Your task to perform on an android device: Search for the new Nintendo switch on Best Buy Image 0: 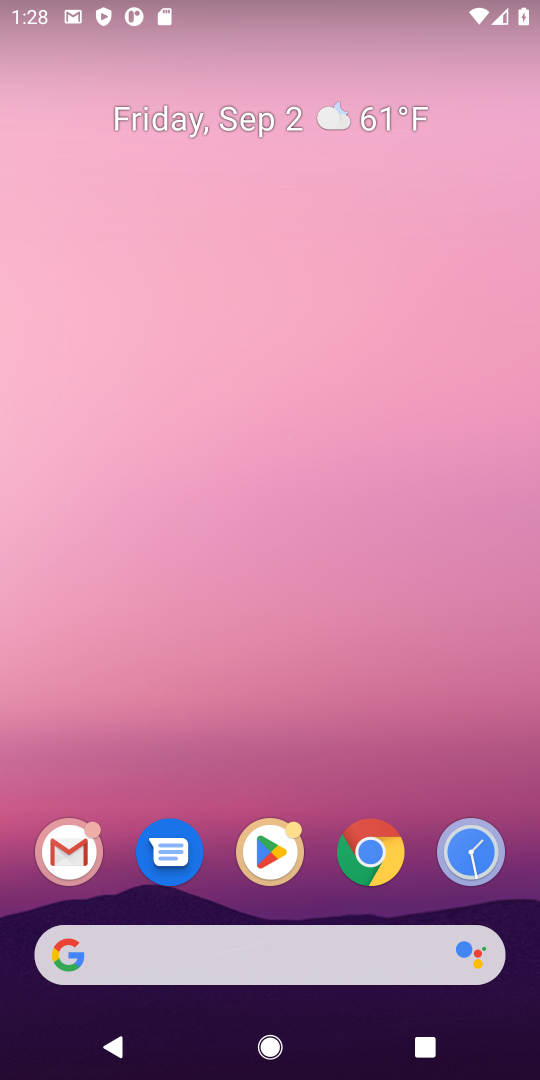
Step 0: click (300, 26)
Your task to perform on an android device: Search for the new Nintendo switch on Best Buy Image 1: 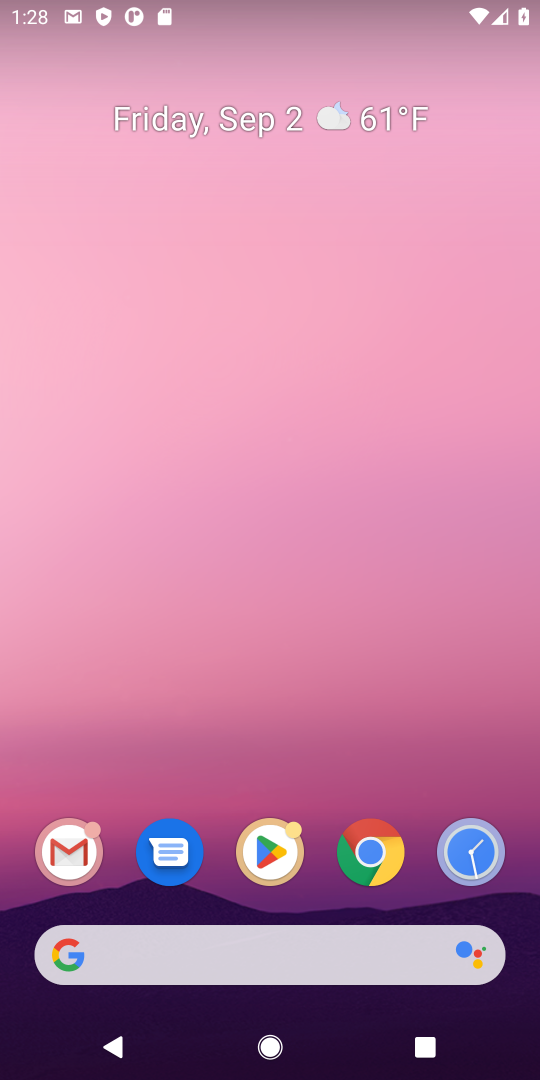
Step 1: drag from (320, 788) to (383, 2)
Your task to perform on an android device: Search for the new Nintendo switch on Best Buy Image 2: 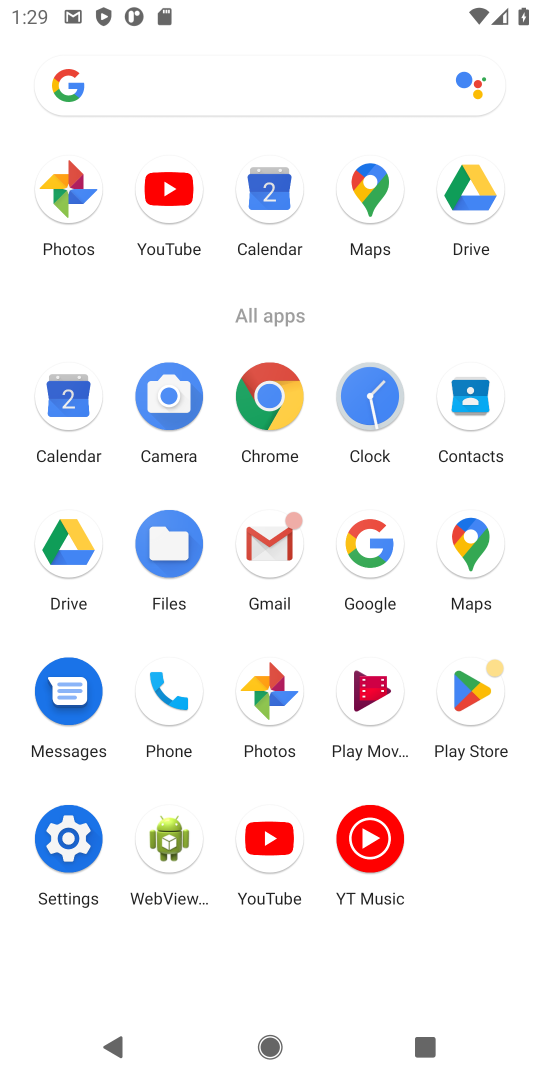
Step 2: click (263, 396)
Your task to perform on an android device: Search for the new Nintendo switch on Best Buy Image 3: 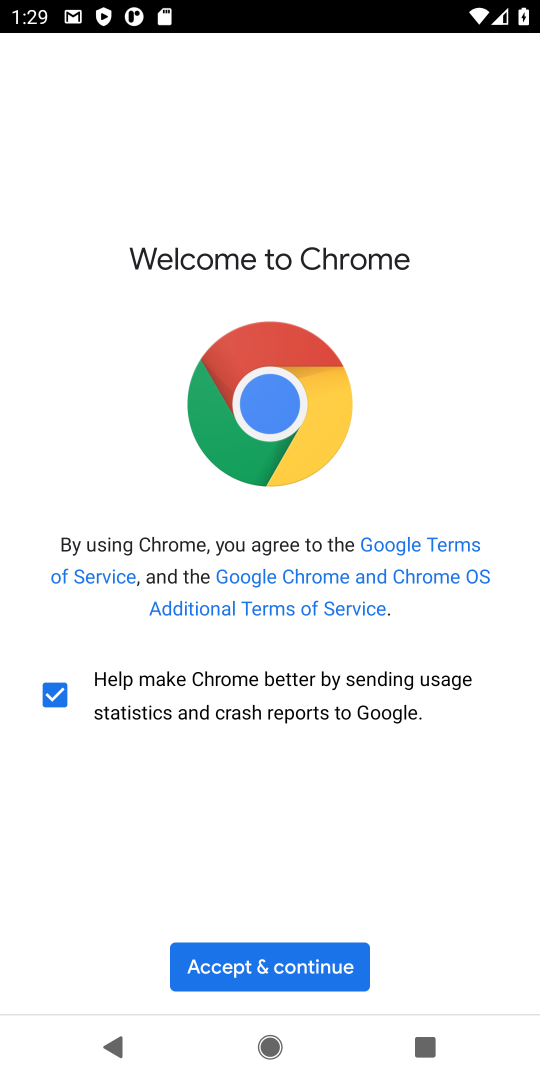
Step 3: click (300, 975)
Your task to perform on an android device: Search for the new Nintendo switch on Best Buy Image 4: 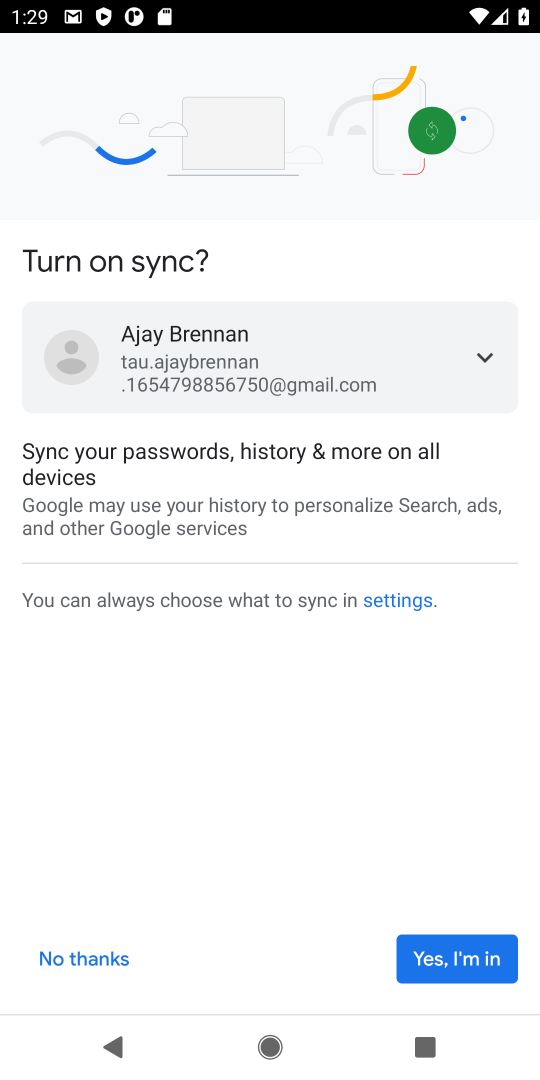
Step 4: click (458, 971)
Your task to perform on an android device: Search for the new Nintendo switch on Best Buy Image 5: 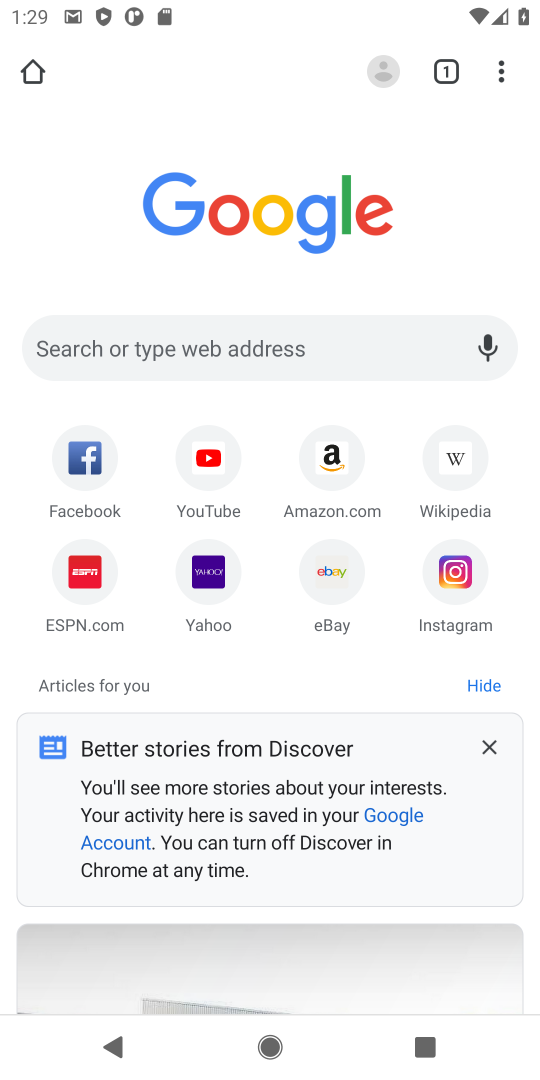
Step 5: click (285, 346)
Your task to perform on an android device: Search for the new Nintendo switch on Best Buy Image 6: 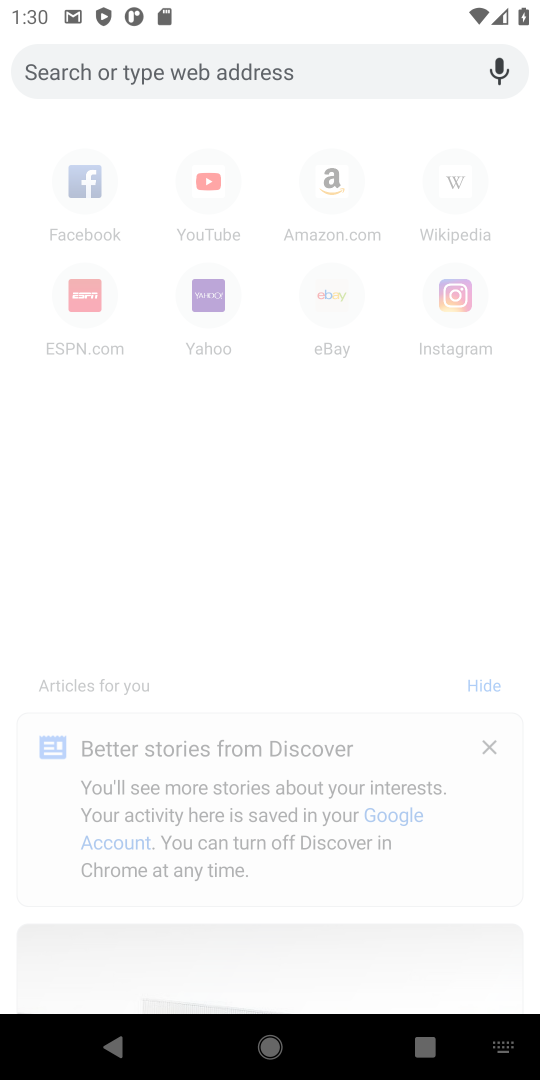
Step 6: type "new Nintendo switch on Best Buy"
Your task to perform on an android device: Search for the new Nintendo switch on Best Buy Image 7: 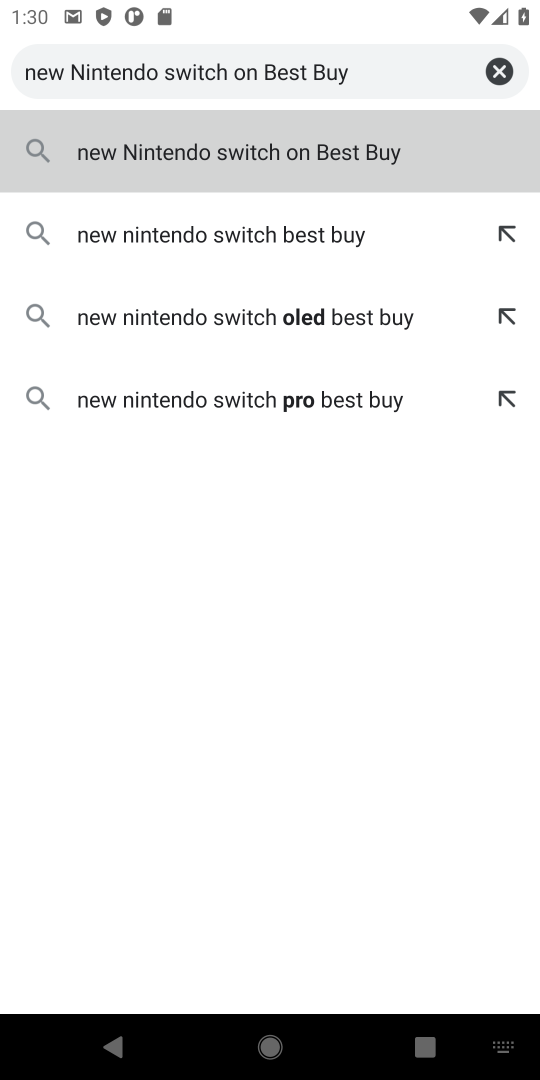
Step 7: press enter
Your task to perform on an android device: Search for the new Nintendo switch on Best Buy Image 8: 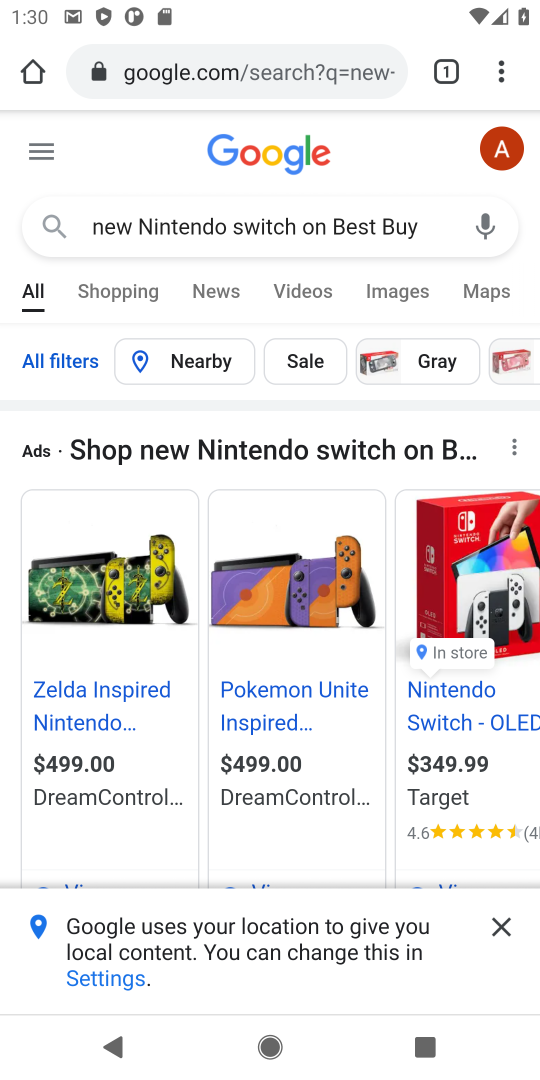
Step 8: drag from (281, 719) to (329, 18)
Your task to perform on an android device: Search for the new Nintendo switch on Best Buy Image 9: 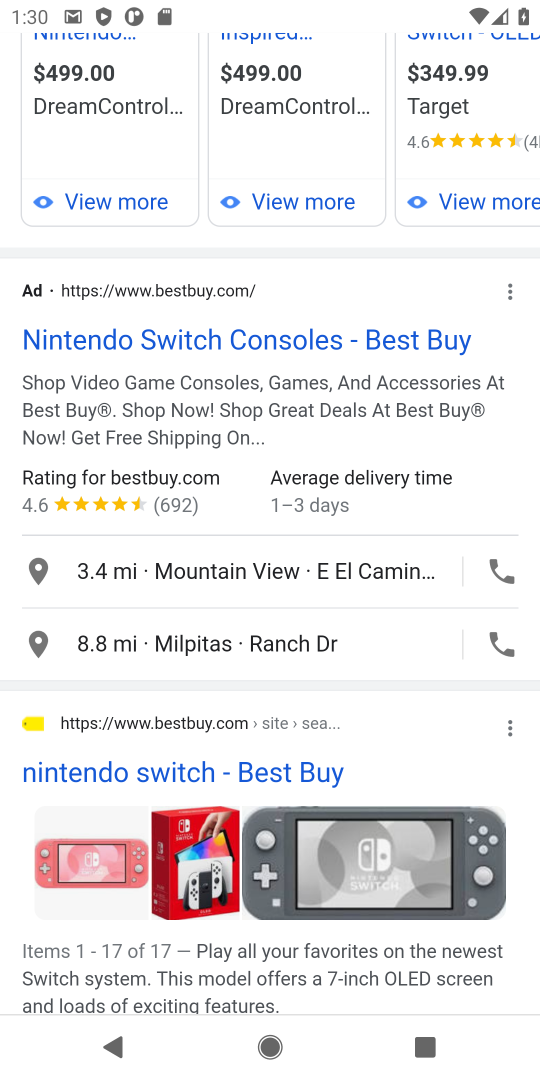
Step 9: drag from (345, 681) to (345, 0)
Your task to perform on an android device: Search for the new Nintendo switch on Best Buy Image 10: 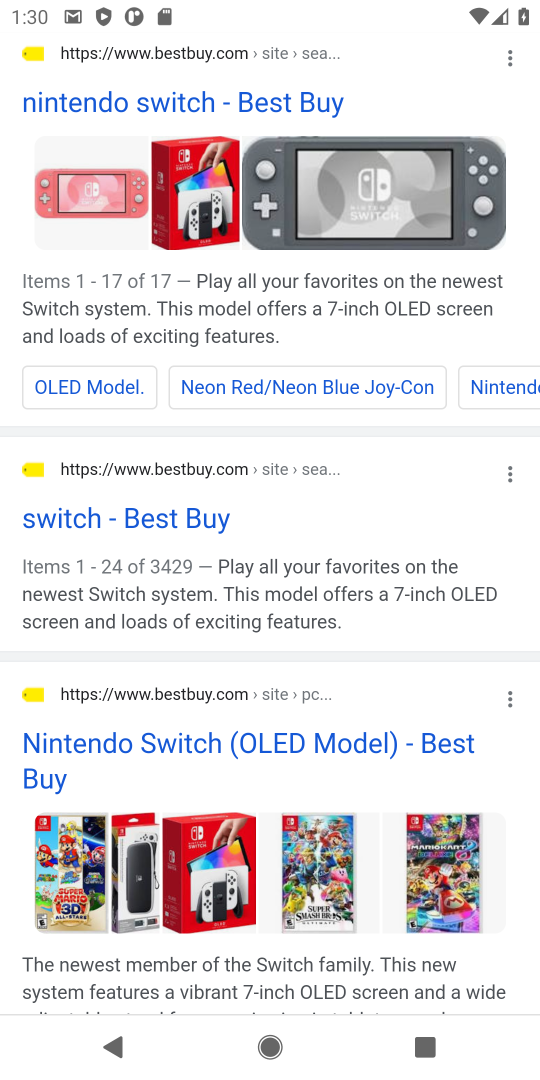
Step 10: drag from (340, 365) to (361, 47)
Your task to perform on an android device: Search for the new Nintendo switch on Best Buy Image 11: 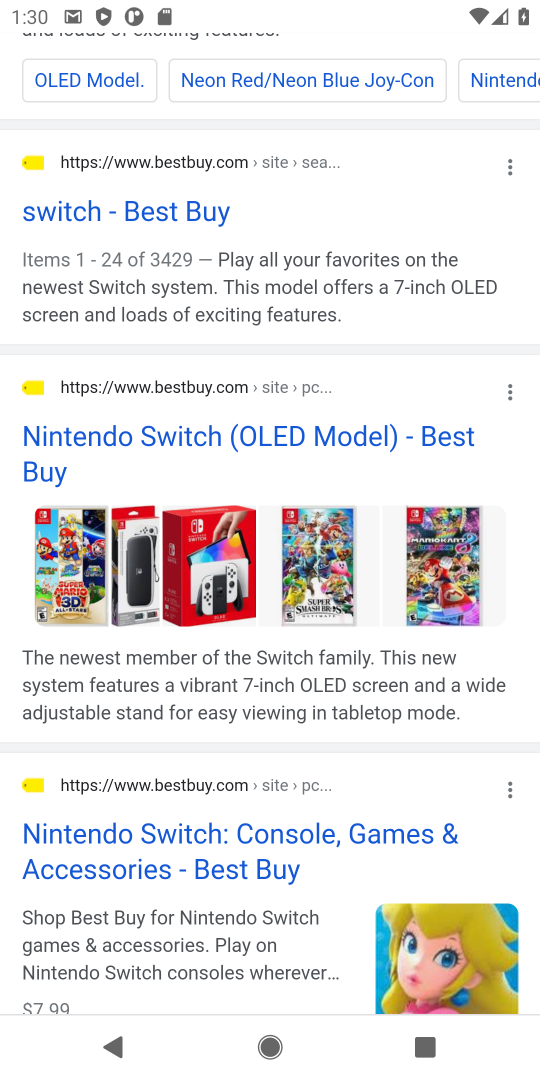
Step 11: drag from (243, 755) to (235, 614)
Your task to perform on an android device: Search for the new Nintendo switch on Best Buy Image 12: 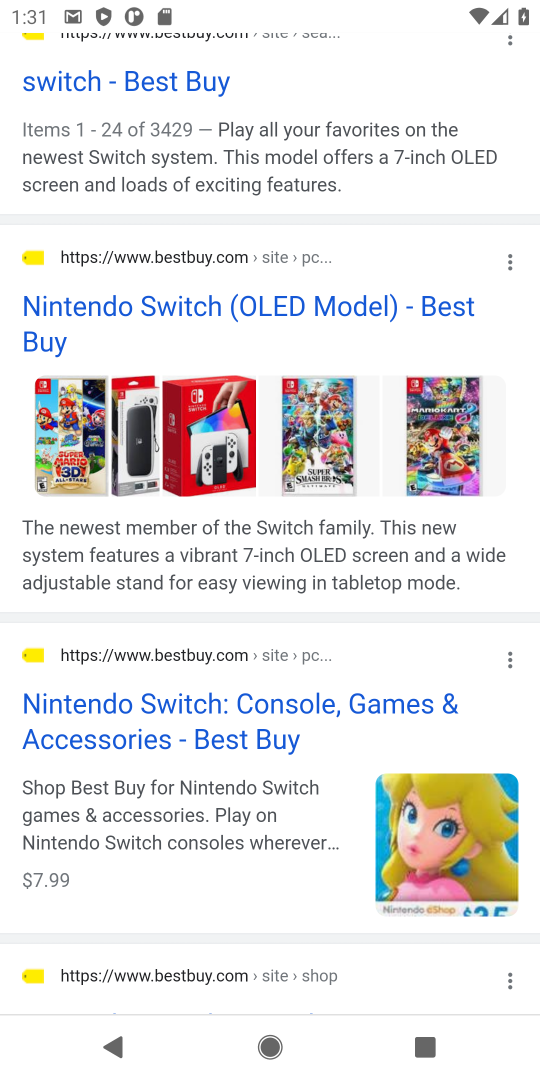
Step 12: drag from (300, 659) to (326, 873)
Your task to perform on an android device: Search for the new Nintendo switch on Best Buy Image 13: 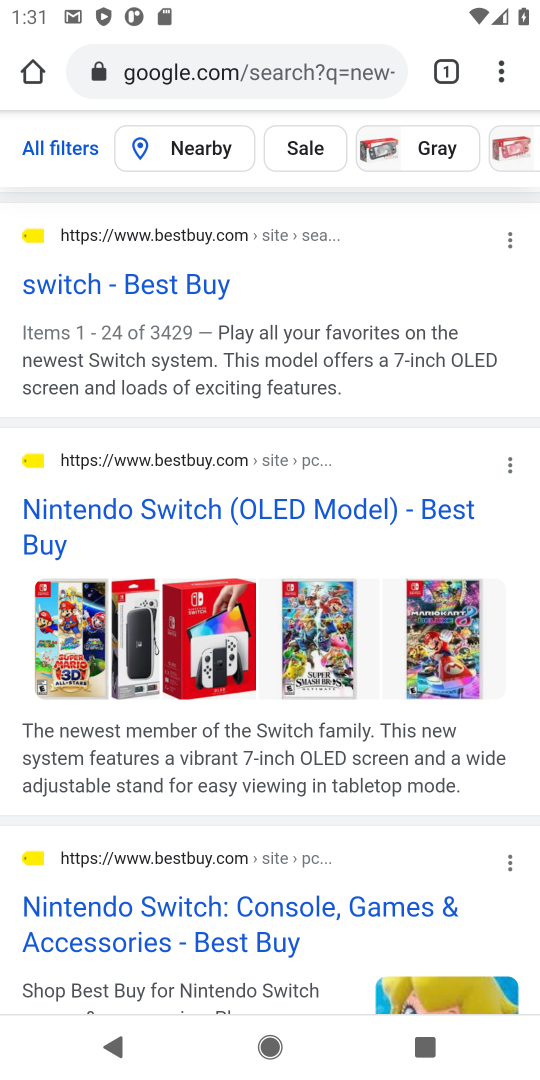
Step 13: click (302, 826)
Your task to perform on an android device: Search for the new Nintendo switch on Best Buy Image 14: 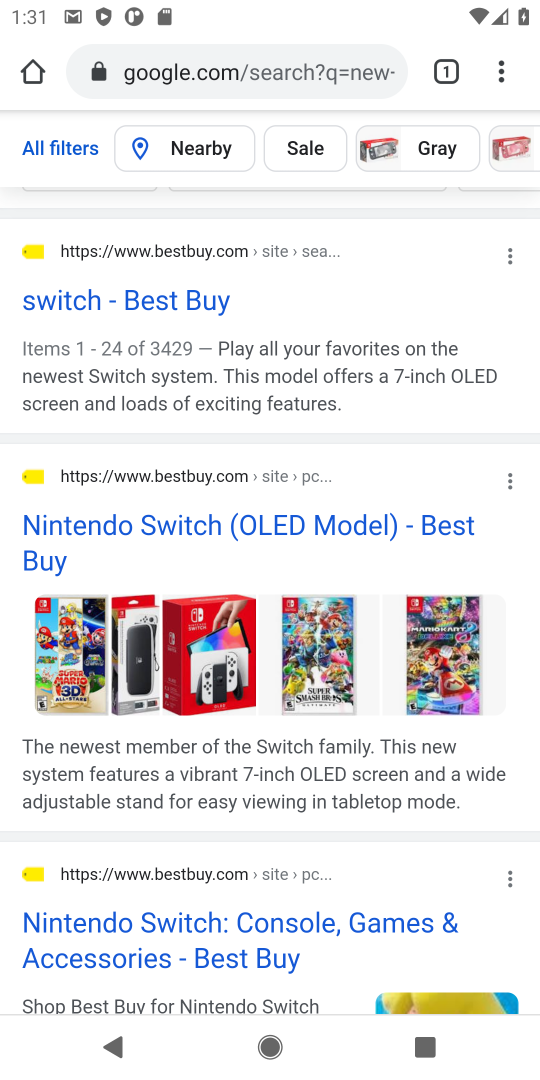
Step 14: drag from (409, 324) to (431, 934)
Your task to perform on an android device: Search for the new Nintendo switch on Best Buy Image 15: 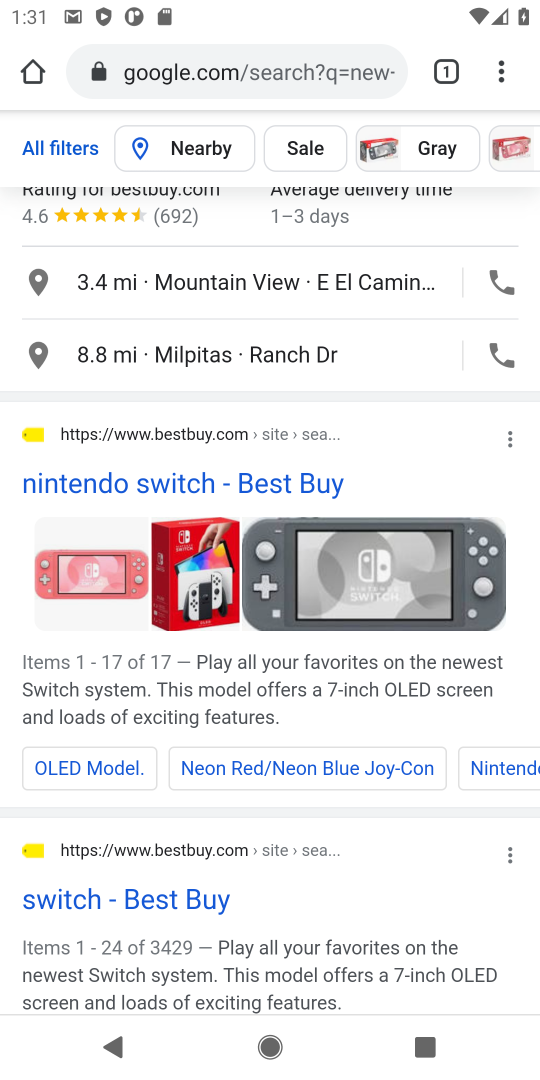
Step 15: click (246, 481)
Your task to perform on an android device: Search for the new Nintendo switch on Best Buy Image 16: 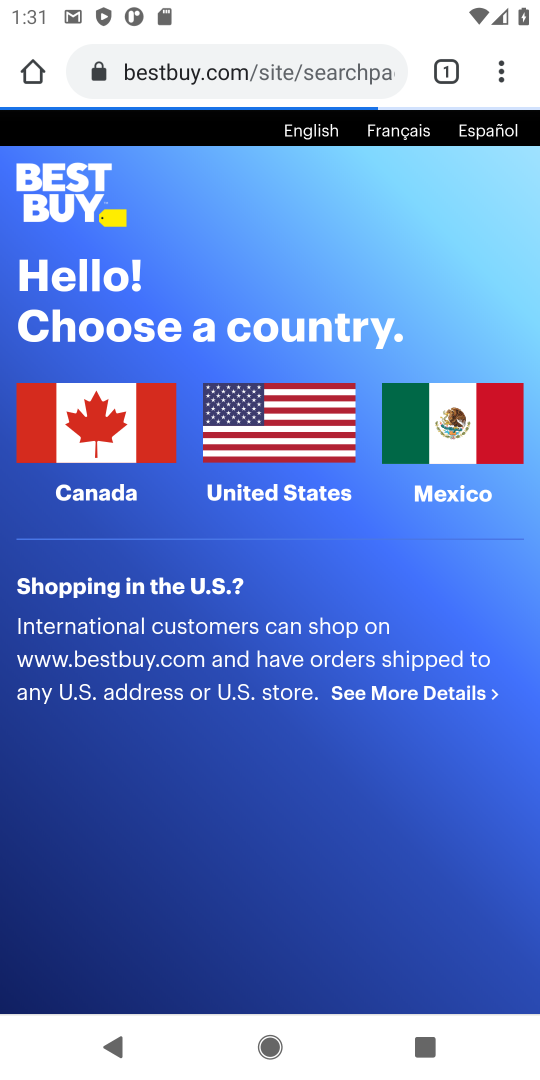
Step 16: click (313, 445)
Your task to perform on an android device: Search for the new Nintendo switch on Best Buy Image 17: 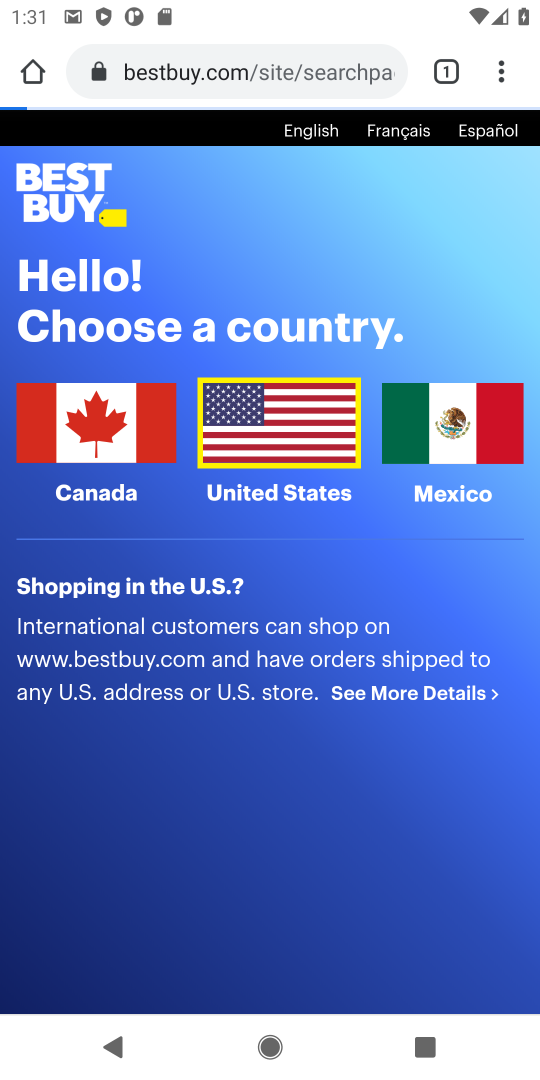
Step 17: click (297, 424)
Your task to perform on an android device: Search for the new Nintendo switch on Best Buy Image 18: 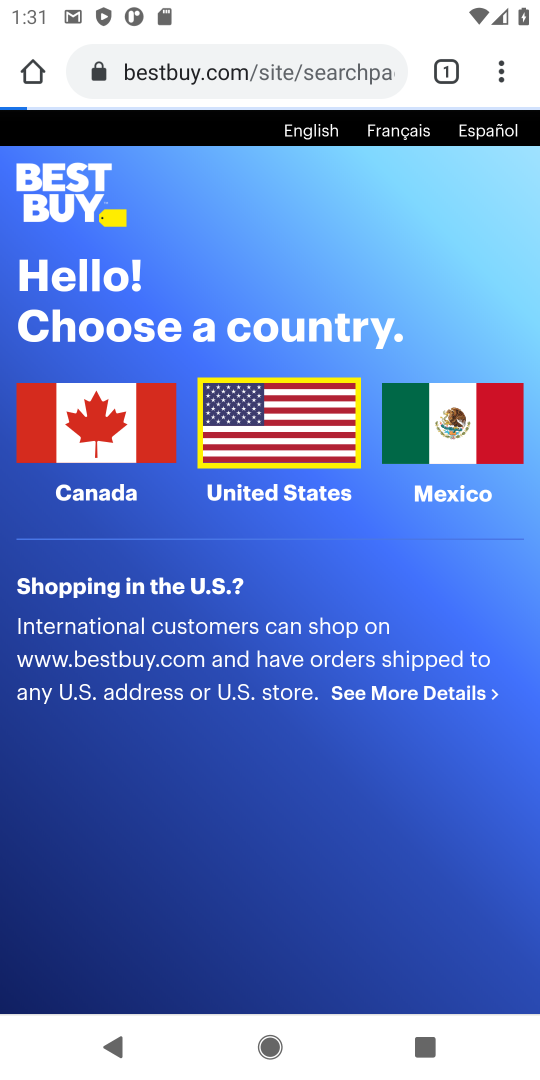
Step 18: click (274, 518)
Your task to perform on an android device: Search for the new Nintendo switch on Best Buy Image 19: 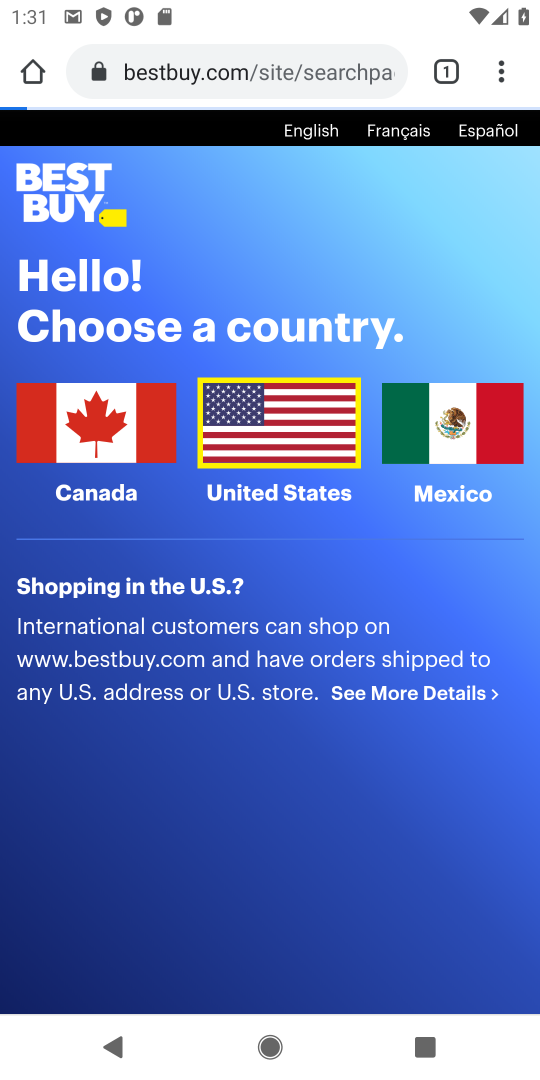
Step 19: click (290, 486)
Your task to perform on an android device: Search for the new Nintendo switch on Best Buy Image 20: 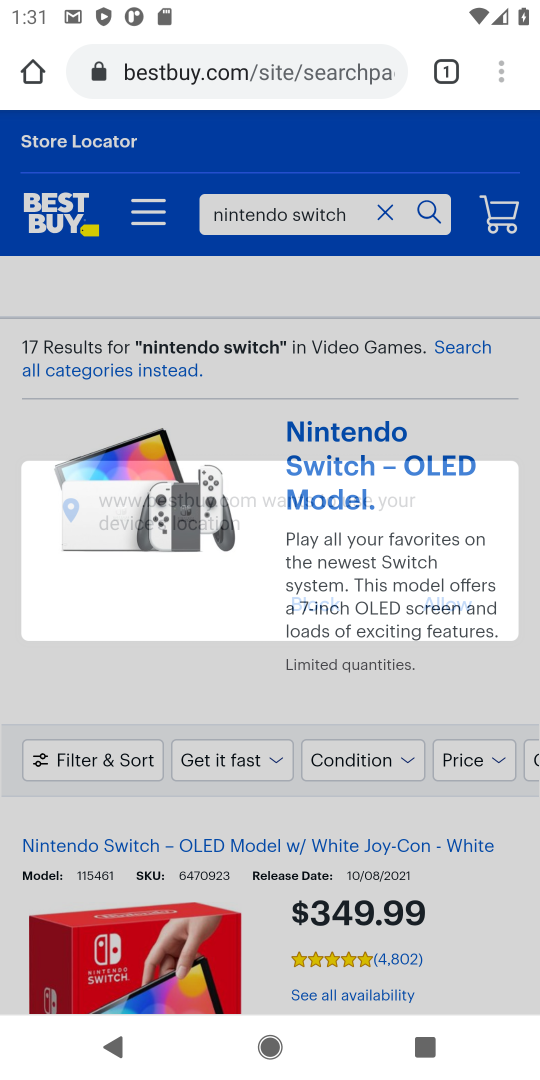
Step 20: task complete